Your task to perform on an android device: toggle airplane mode Image 0: 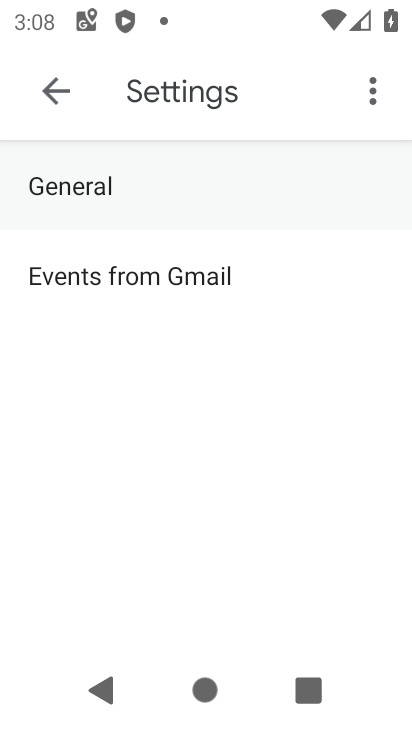
Step 0: press home button
Your task to perform on an android device: toggle airplane mode Image 1: 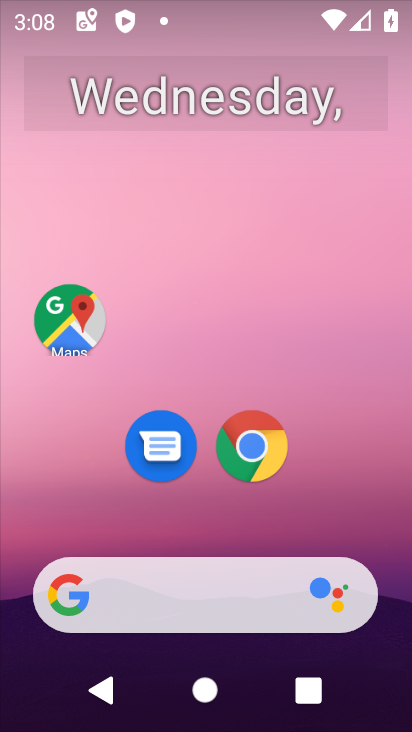
Step 1: drag from (218, 499) to (252, 63)
Your task to perform on an android device: toggle airplane mode Image 2: 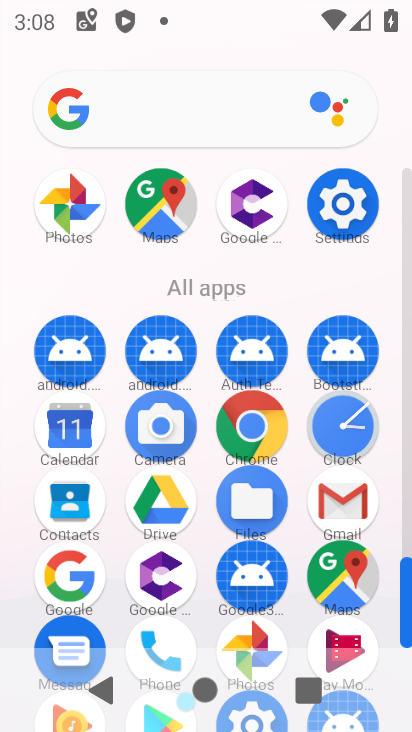
Step 2: click (348, 203)
Your task to perform on an android device: toggle airplane mode Image 3: 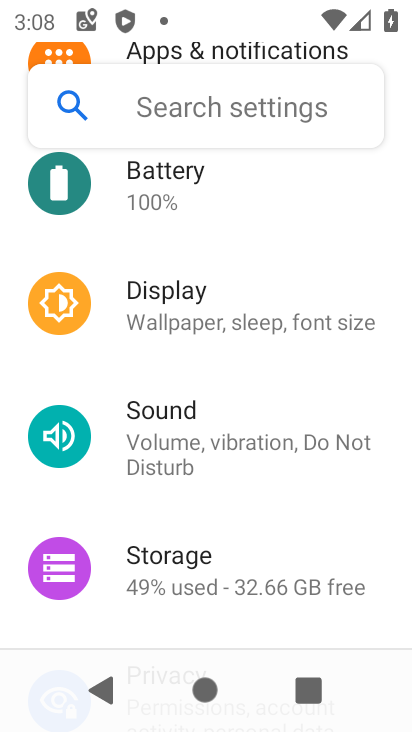
Step 3: drag from (248, 215) to (263, 646)
Your task to perform on an android device: toggle airplane mode Image 4: 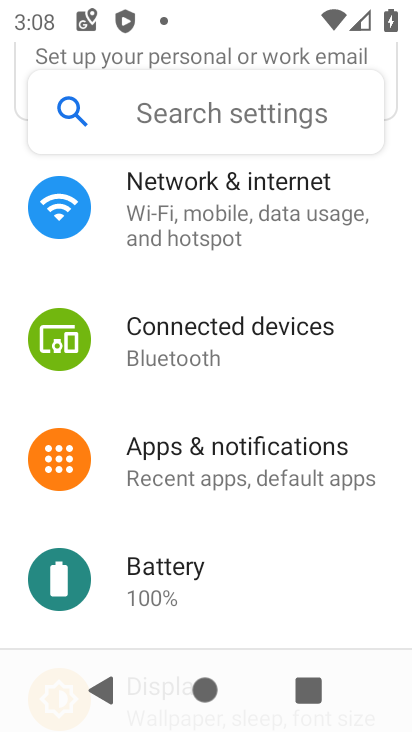
Step 4: click (219, 231)
Your task to perform on an android device: toggle airplane mode Image 5: 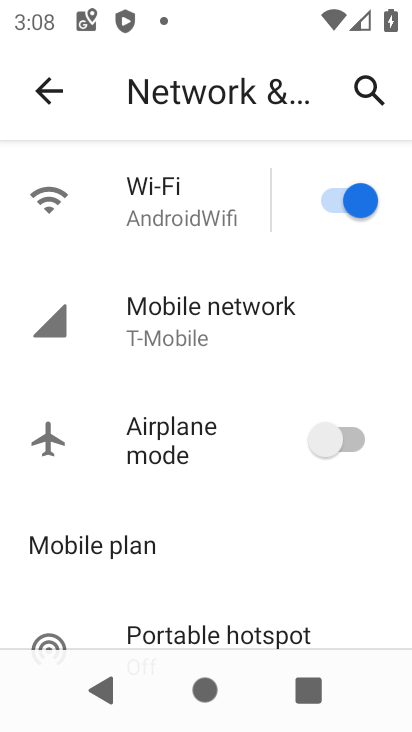
Step 5: click (342, 441)
Your task to perform on an android device: toggle airplane mode Image 6: 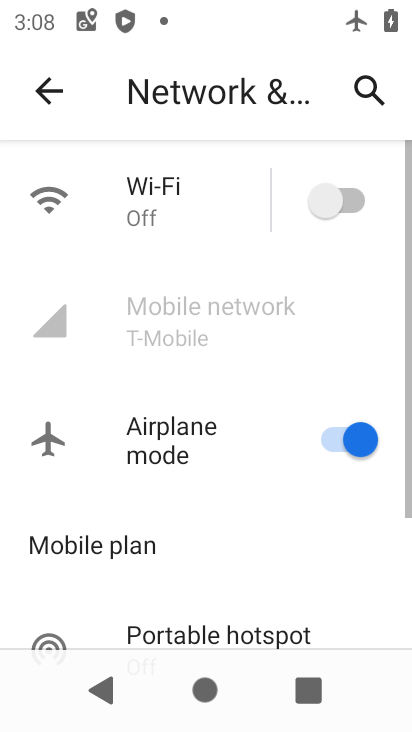
Step 6: task complete